Your task to perform on an android device: toggle location history Image 0: 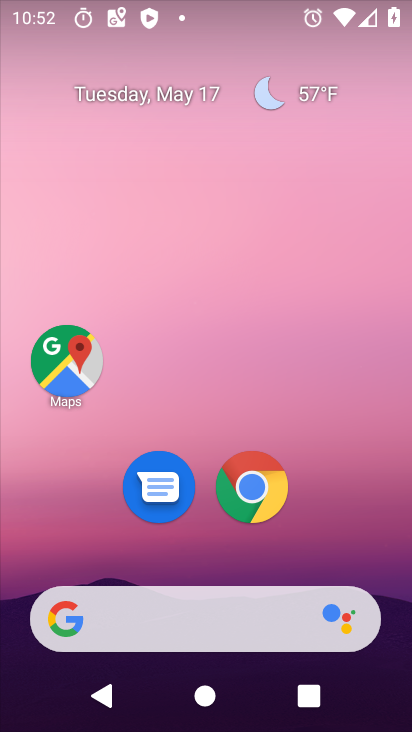
Step 0: drag from (227, 727) to (235, 57)
Your task to perform on an android device: toggle location history Image 1: 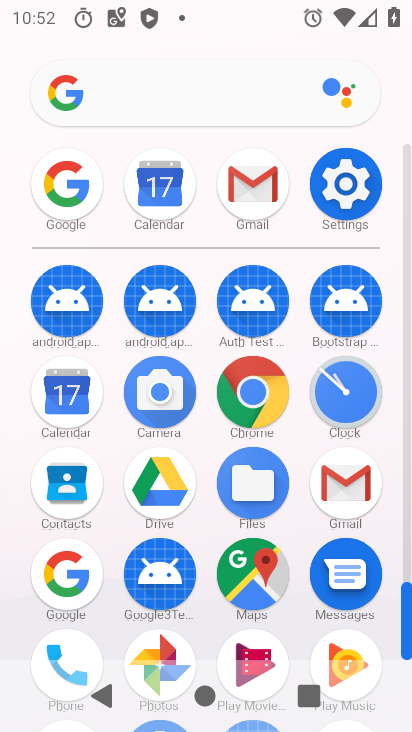
Step 1: click (347, 187)
Your task to perform on an android device: toggle location history Image 2: 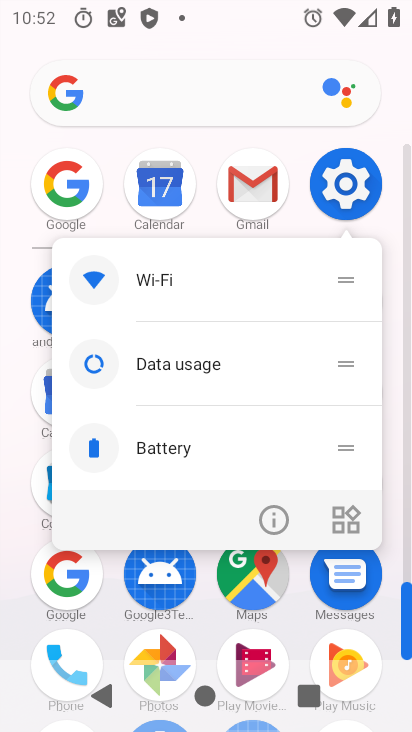
Step 2: click (341, 168)
Your task to perform on an android device: toggle location history Image 3: 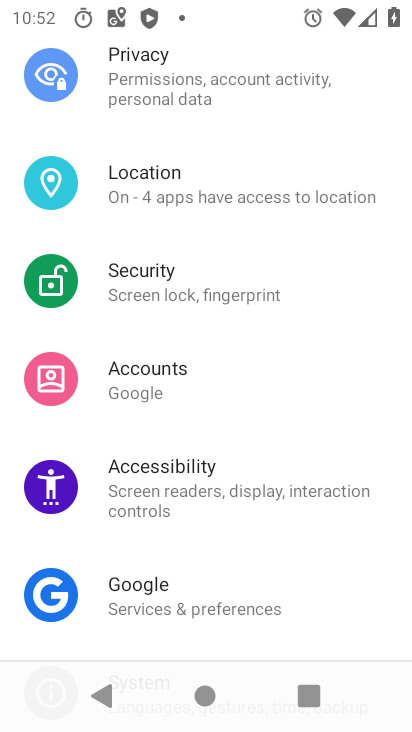
Step 3: click (154, 182)
Your task to perform on an android device: toggle location history Image 4: 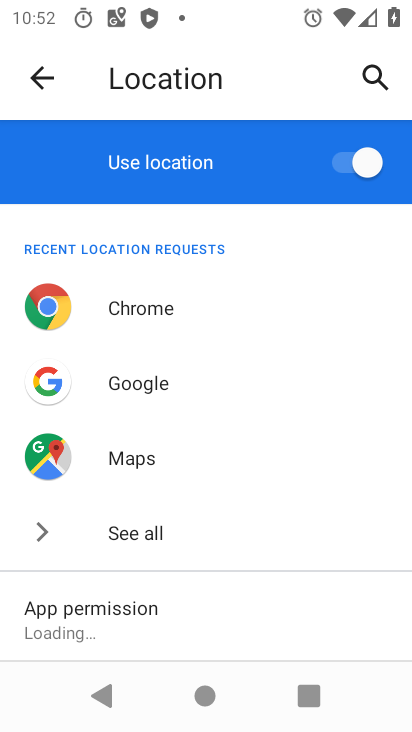
Step 4: drag from (165, 626) to (177, 295)
Your task to perform on an android device: toggle location history Image 5: 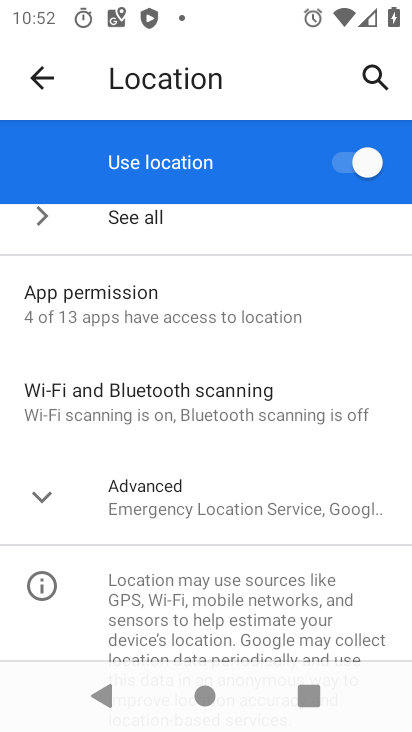
Step 5: click (157, 488)
Your task to perform on an android device: toggle location history Image 6: 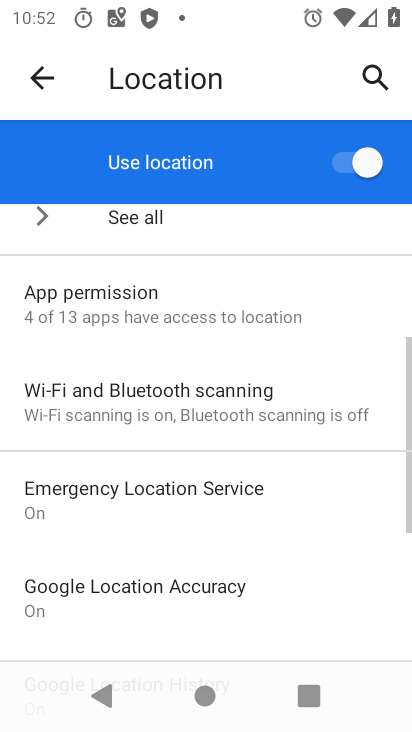
Step 6: drag from (208, 611) to (207, 392)
Your task to perform on an android device: toggle location history Image 7: 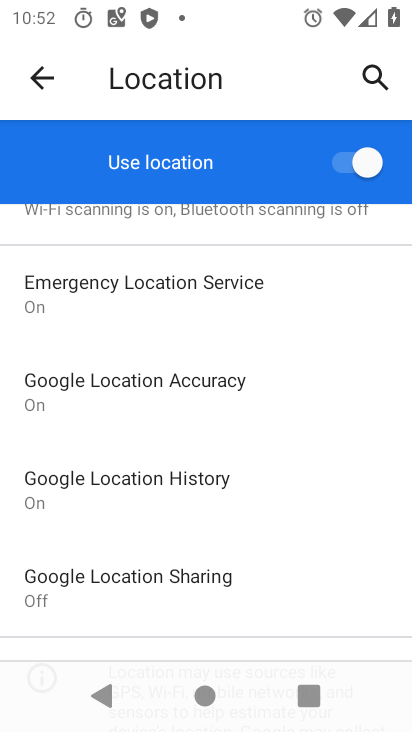
Step 7: click (139, 480)
Your task to perform on an android device: toggle location history Image 8: 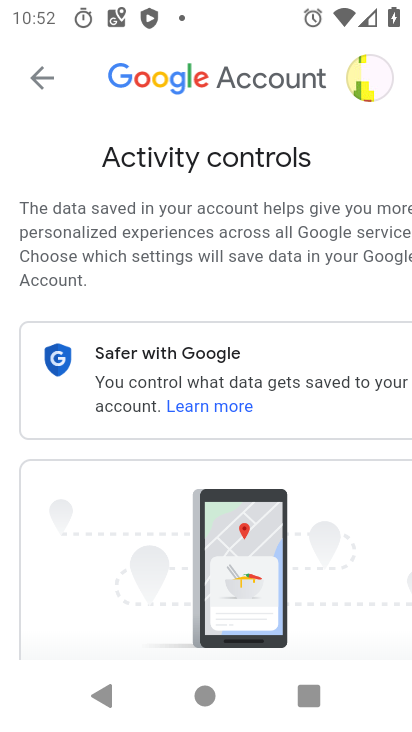
Step 8: drag from (303, 641) to (269, 218)
Your task to perform on an android device: toggle location history Image 9: 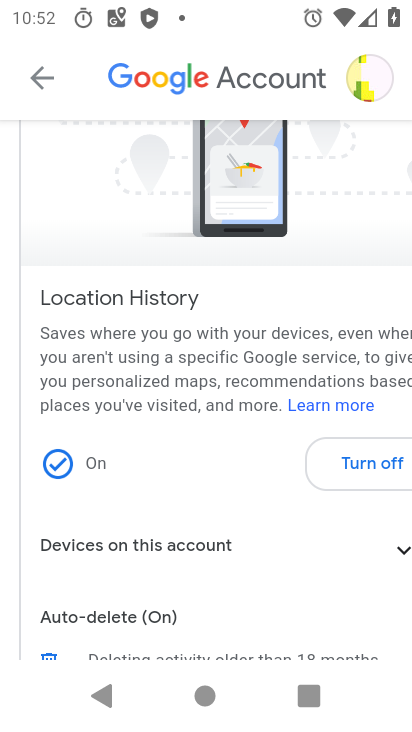
Step 9: click (358, 473)
Your task to perform on an android device: toggle location history Image 10: 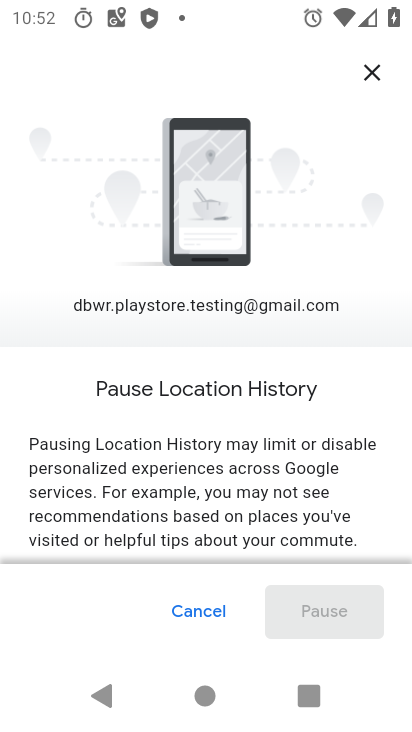
Step 10: drag from (302, 532) to (295, 124)
Your task to perform on an android device: toggle location history Image 11: 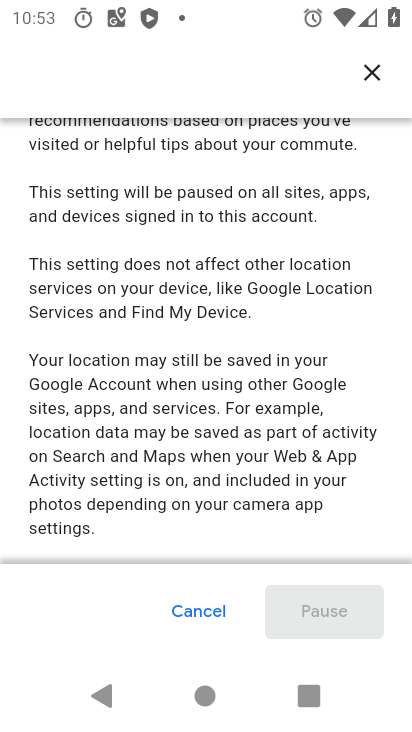
Step 11: drag from (300, 523) to (303, 209)
Your task to perform on an android device: toggle location history Image 12: 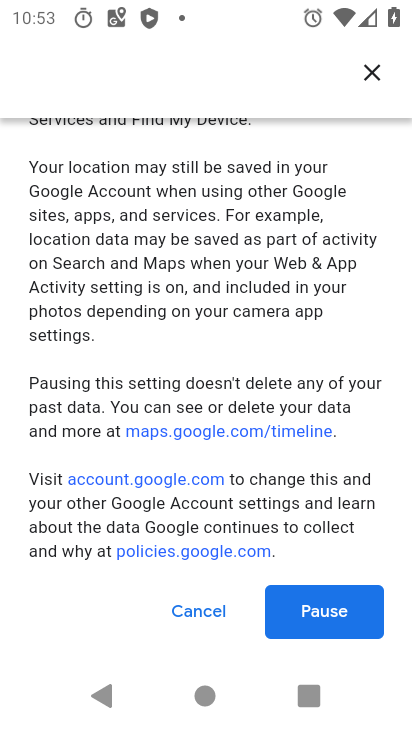
Step 12: click (335, 613)
Your task to perform on an android device: toggle location history Image 13: 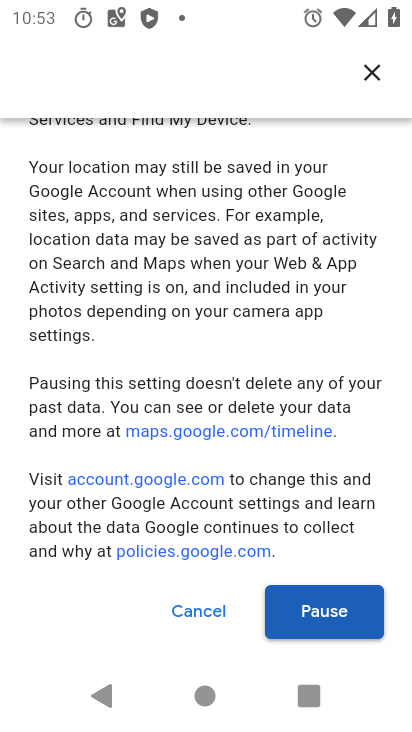
Step 13: click (332, 613)
Your task to perform on an android device: toggle location history Image 14: 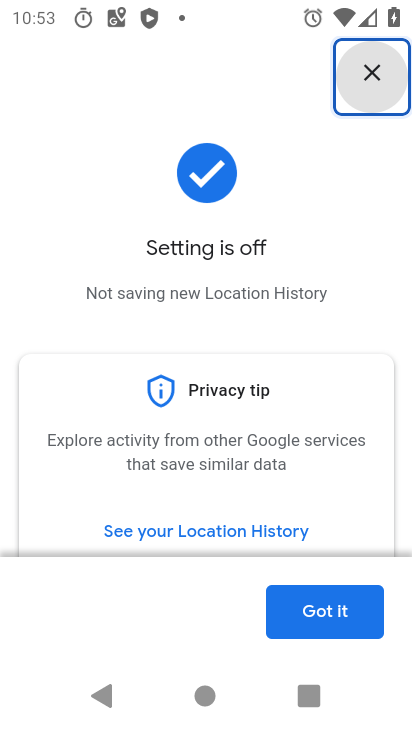
Step 14: task complete